Your task to perform on an android device: Go to privacy settings Image 0: 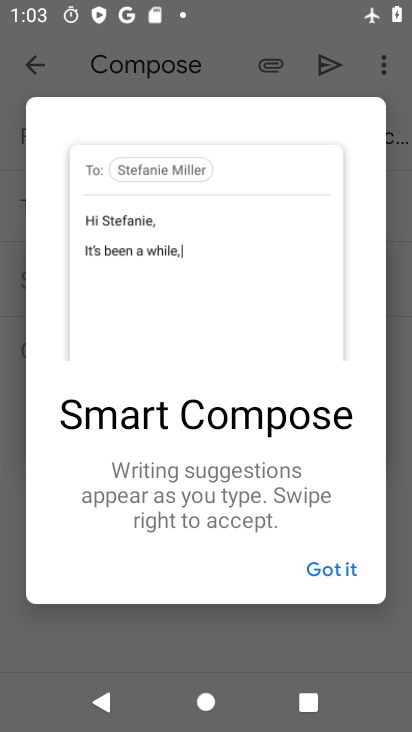
Step 0: press home button
Your task to perform on an android device: Go to privacy settings Image 1: 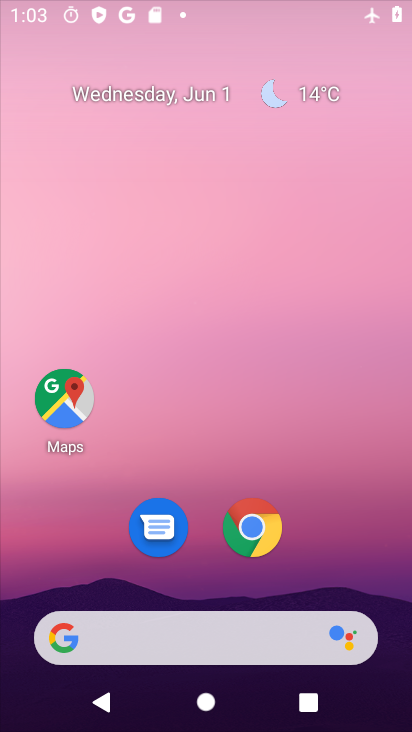
Step 1: drag from (205, 616) to (308, 218)
Your task to perform on an android device: Go to privacy settings Image 2: 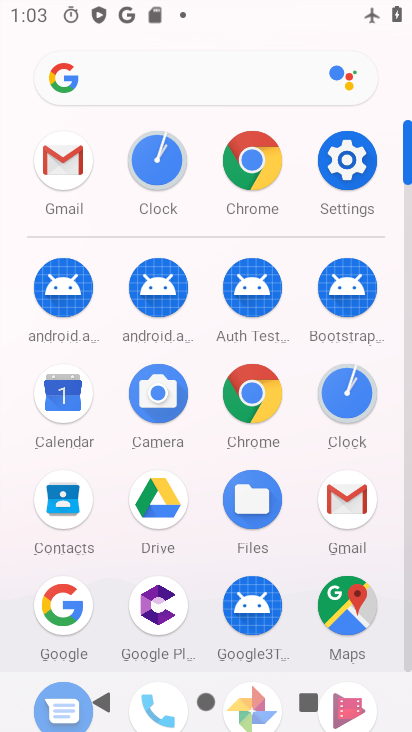
Step 2: click (361, 189)
Your task to perform on an android device: Go to privacy settings Image 3: 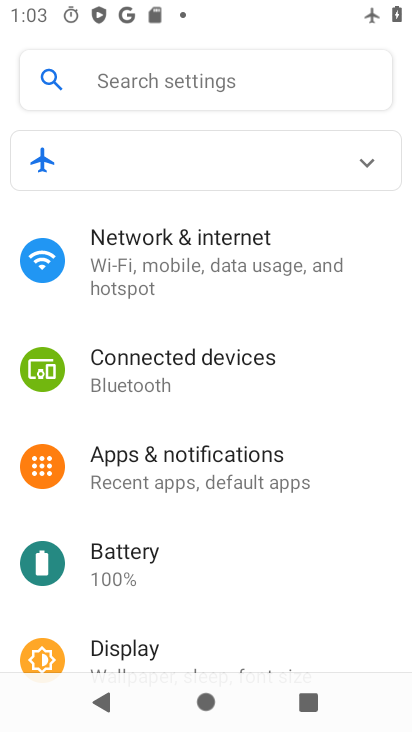
Step 3: drag from (179, 574) to (197, 324)
Your task to perform on an android device: Go to privacy settings Image 4: 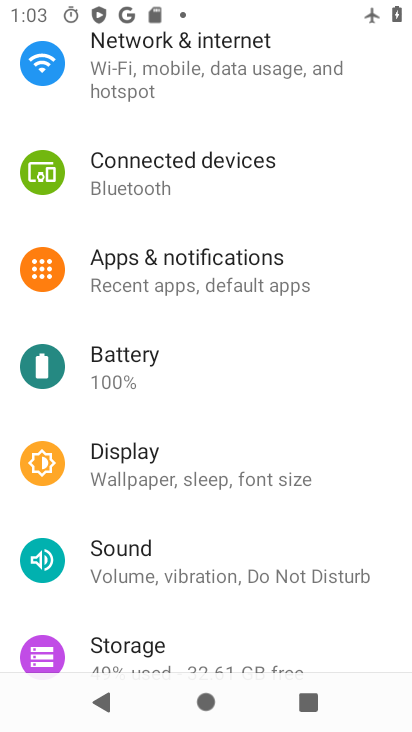
Step 4: drag from (166, 536) to (224, 280)
Your task to perform on an android device: Go to privacy settings Image 5: 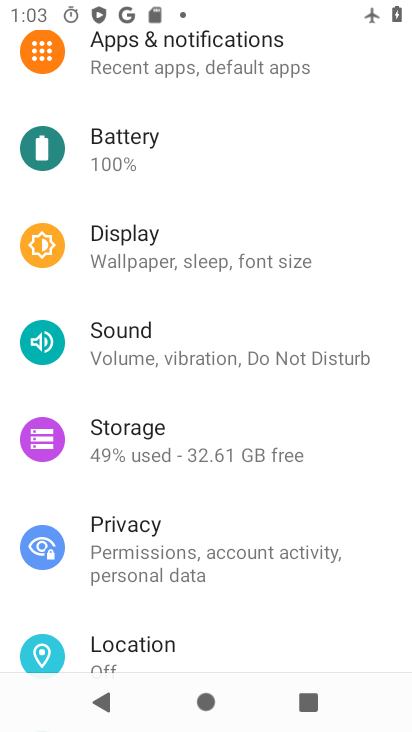
Step 5: click (172, 557)
Your task to perform on an android device: Go to privacy settings Image 6: 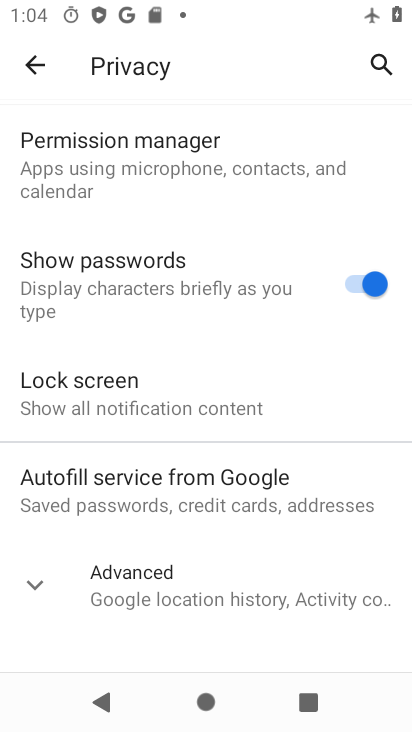
Step 6: task complete